Your task to perform on an android device: delete location history Image 0: 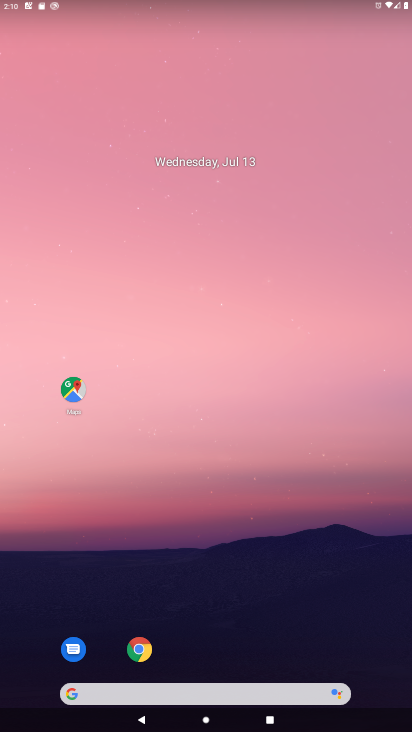
Step 0: press home button
Your task to perform on an android device: delete location history Image 1: 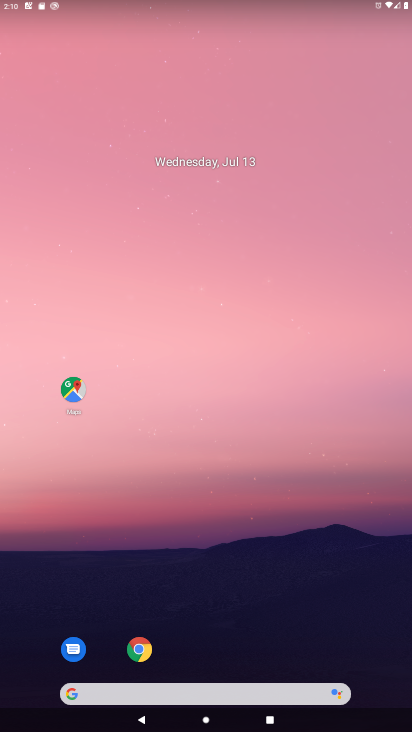
Step 1: drag from (346, 532) to (334, 23)
Your task to perform on an android device: delete location history Image 2: 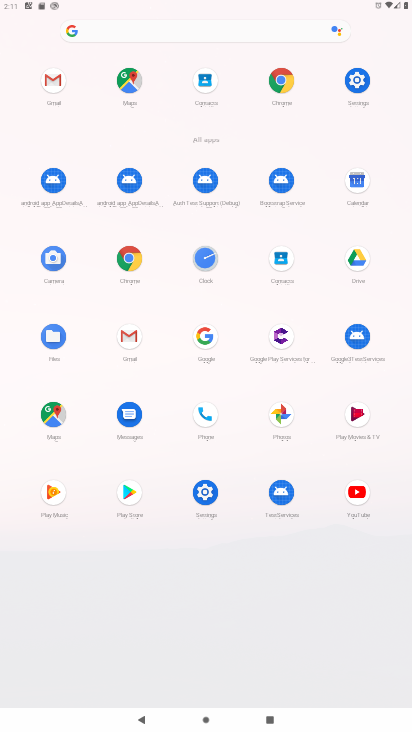
Step 2: click (59, 408)
Your task to perform on an android device: delete location history Image 3: 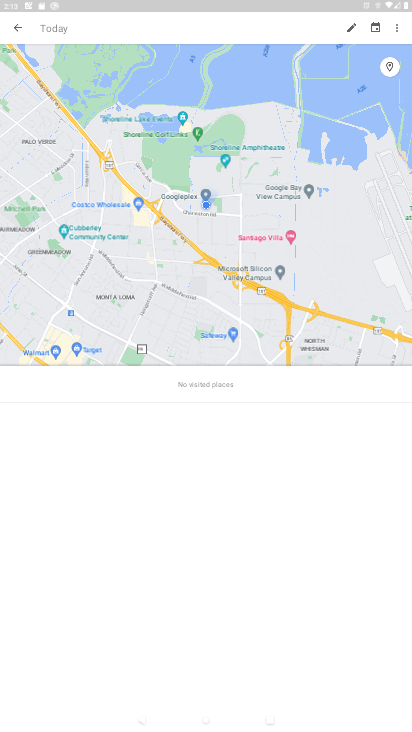
Step 3: click (400, 23)
Your task to perform on an android device: delete location history Image 4: 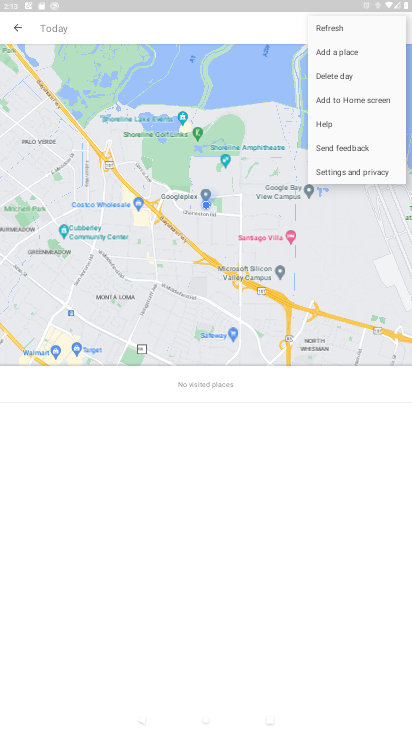
Step 4: click (340, 174)
Your task to perform on an android device: delete location history Image 5: 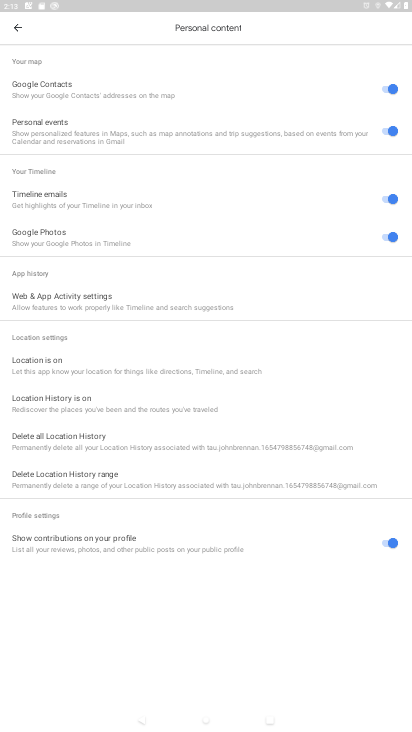
Step 5: click (89, 479)
Your task to perform on an android device: delete location history Image 6: 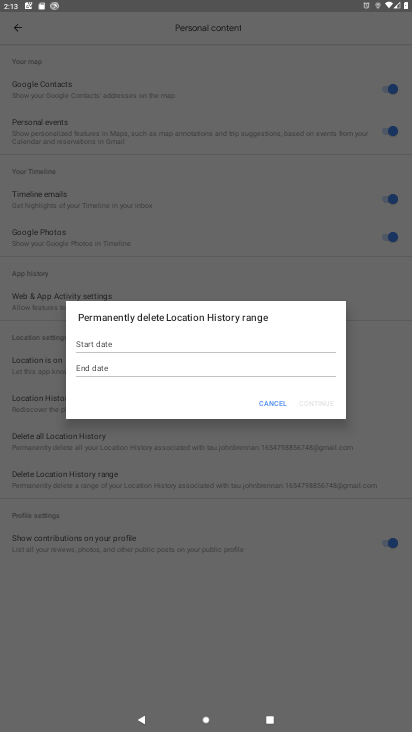
Step 6: click (272, 403)
Your task to perform on an android device: delete location history Image 7: 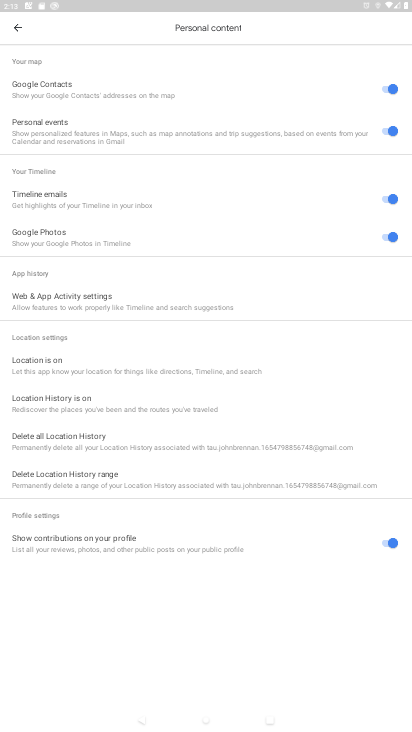
Step 7: click (44, 443)
Your task to perform on an android device: delete location history Image 8: 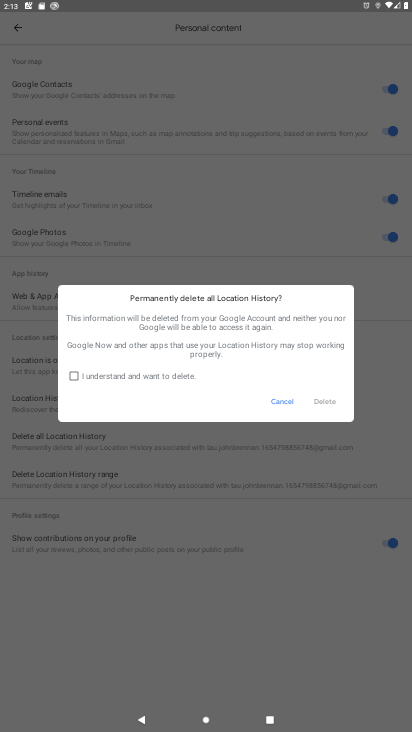
Step 8: click (163, 376)
Your task to perform on an android device: delete location history Image 9: 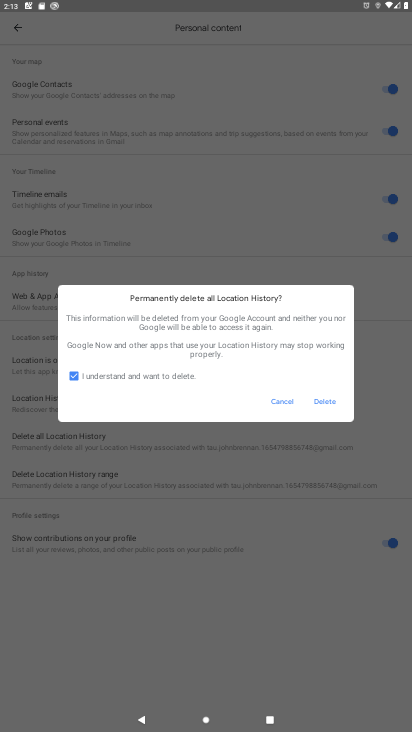
Step 9: click (330, 402)
Your task to perform on an android device: delete location history Image 10: 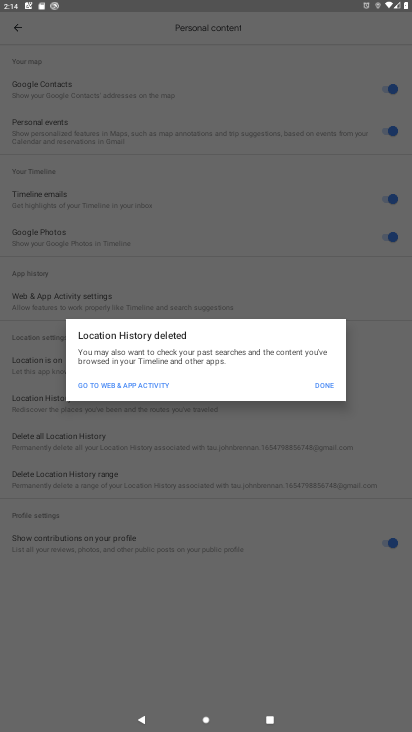
Step 10: click (319, 388)
Your task to perform on an android device: delete location history Image 11: 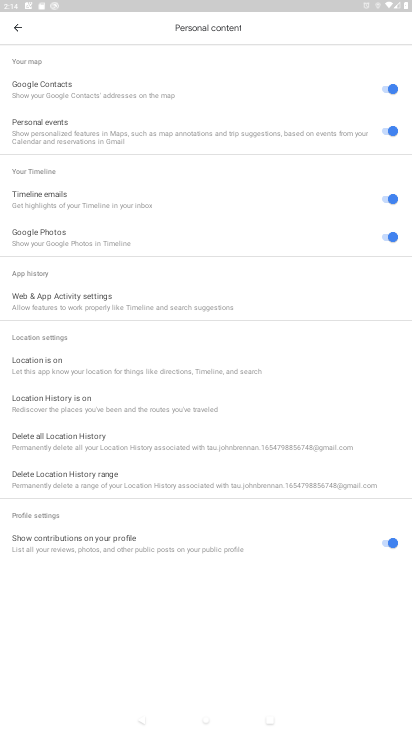
Step 11: task complete